Your task to perform on an android device: Open Chrome and go to settings Image 0: 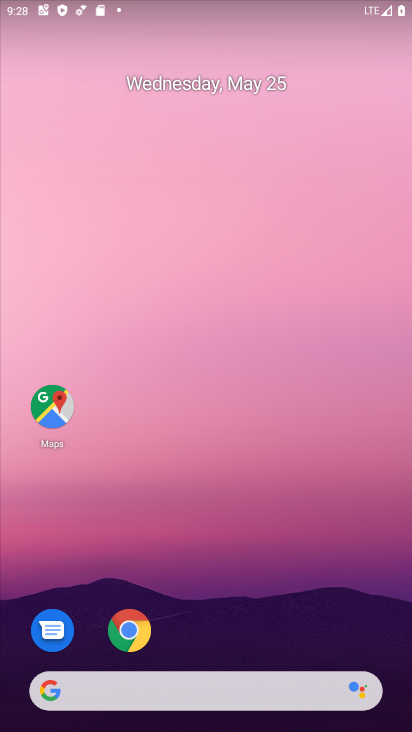
Step 0: click (130, 623)
Your task to perform on an android device: Open Chrome and go to settings Image 1: 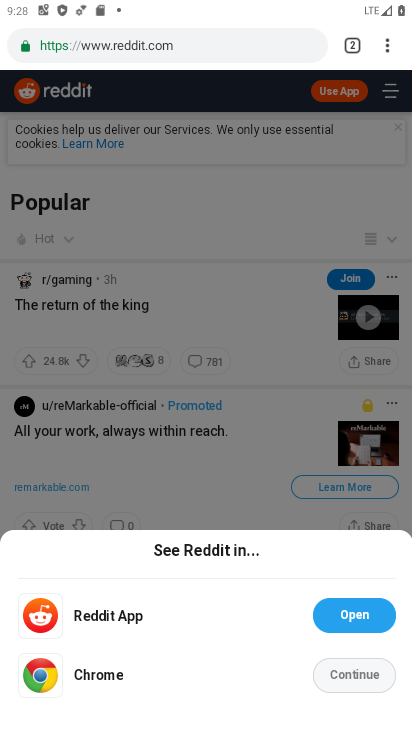
Step 1: click (389, 47)
Your task to perform on an android device: Open Chrome and go to settings Image 2: 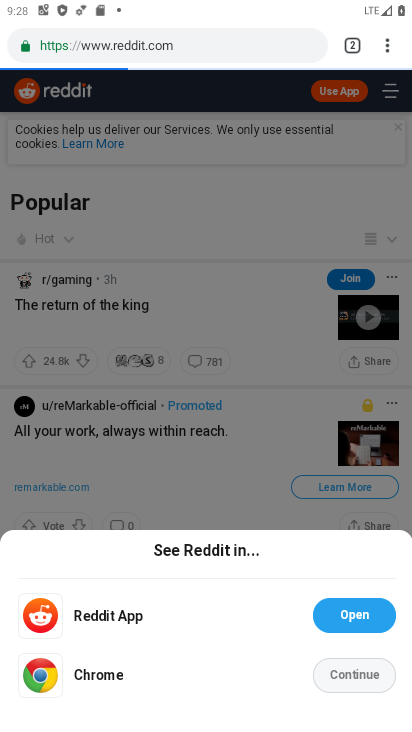
Step 2: task complete